Your task to perform on an android device: Open Chrome and go to settings Image 0: 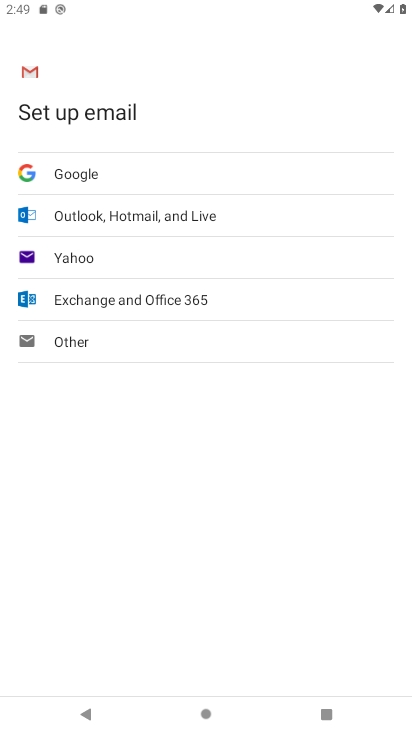
Step 0: press home button
Your task to perform on an android device: Open Chrome and go to settings Image 1: 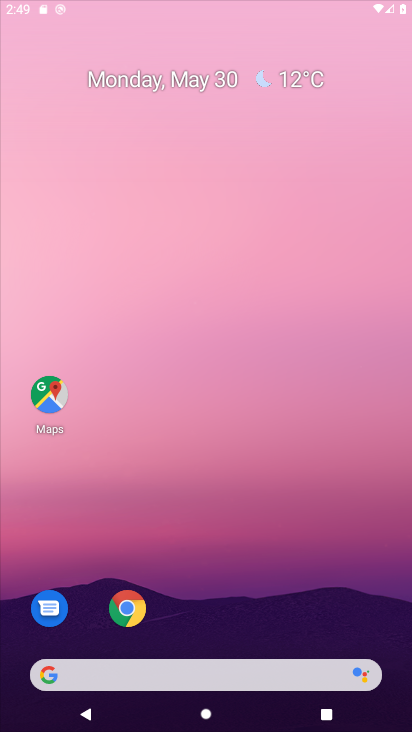
Step 1: drag from (315, 624) to (233, 31)
Your task to perform on an android device: Open Chrome and go to settings Image 2: 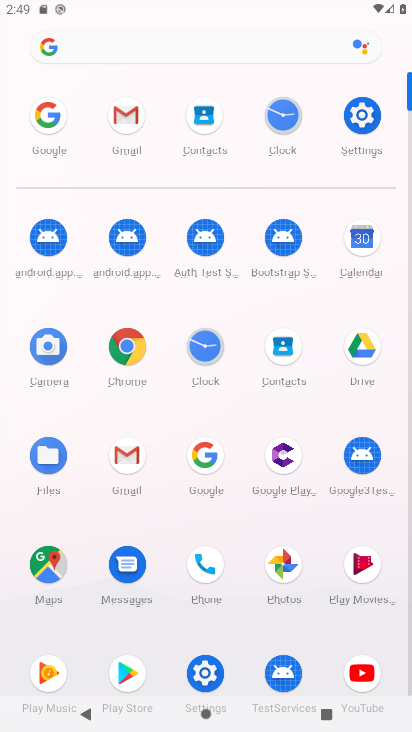
Step 2: click (130, 323)
Your task to perform on an android device: Open Chrome and go to settings Image 3: 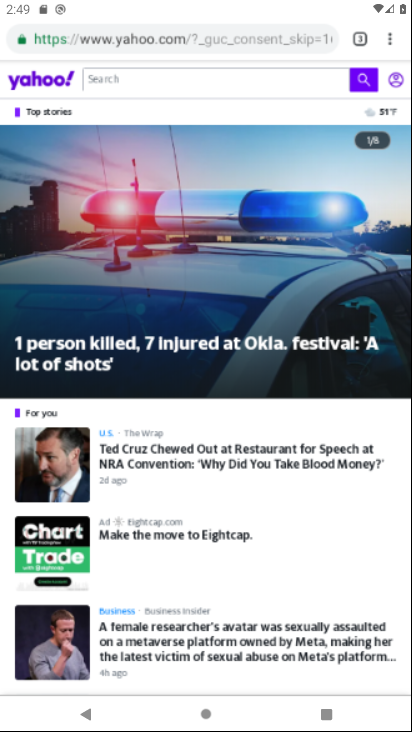
Step 3: click (389, 41)
Your task to perform on an android device: Open Chrome and go to settings Image 4: 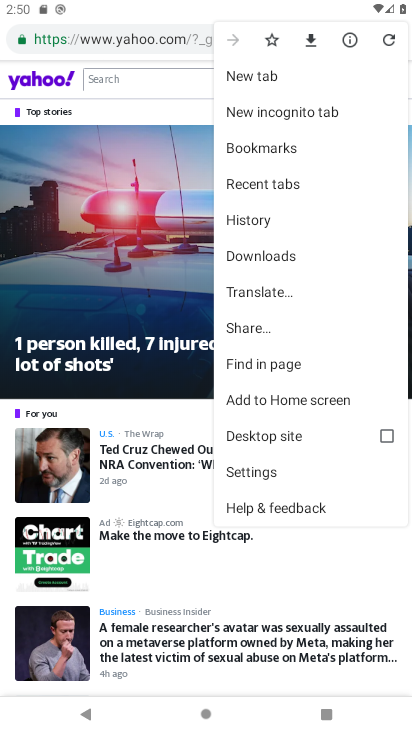
Step 4: click (267, 474)
Your task to perform on an android device: Open Chrome and go to settings Image 5: 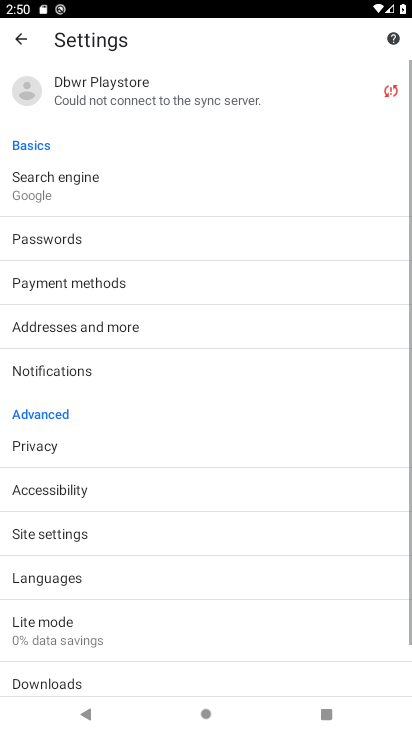
Step 5: task complete